Your task to perform on an android device: Go to location settings Image 0: 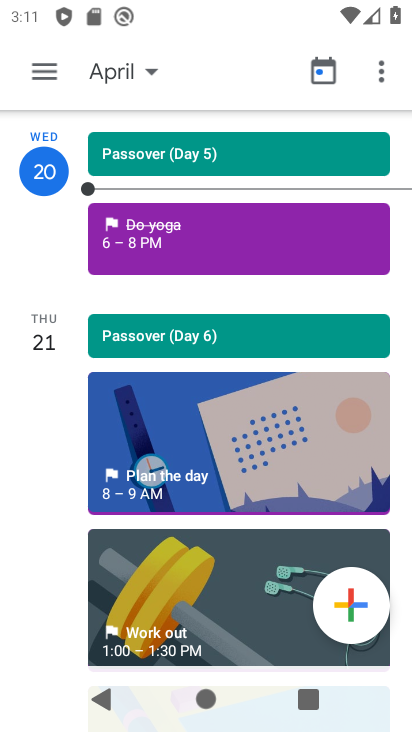
Step 0: press home button
Your task to perform on an android device: Go to location settings Image 1: 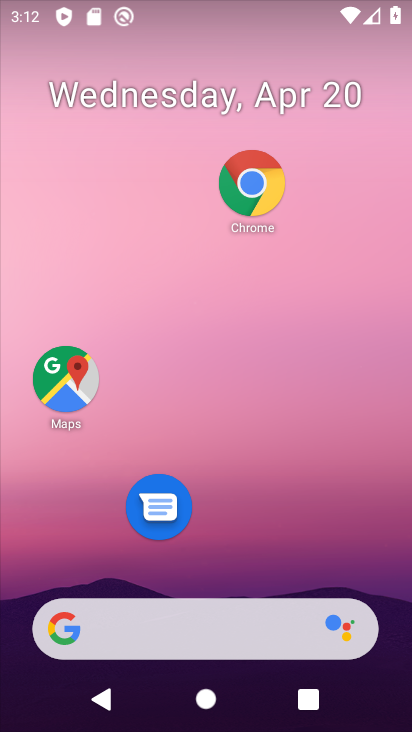
Step 1: drag from (231, 565) to (164, 158)
Your task to perform on an android device: Go to location settings Image 2: 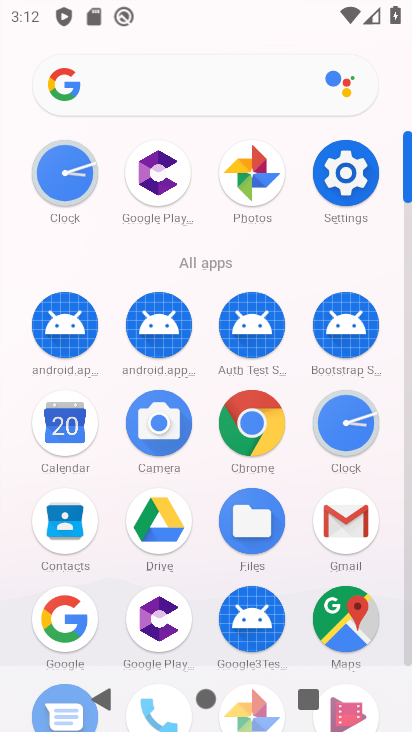
Step 2: click (347, 182)
Your task to perform on an android device: Go to location settings Image 3: 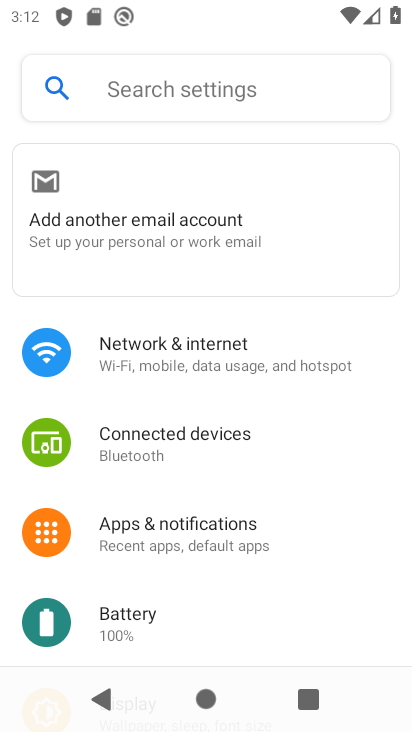
Step 3: drag from (205, 590) to (224, 352)
Your task to perform on an android device: Go to location settings Image 4: 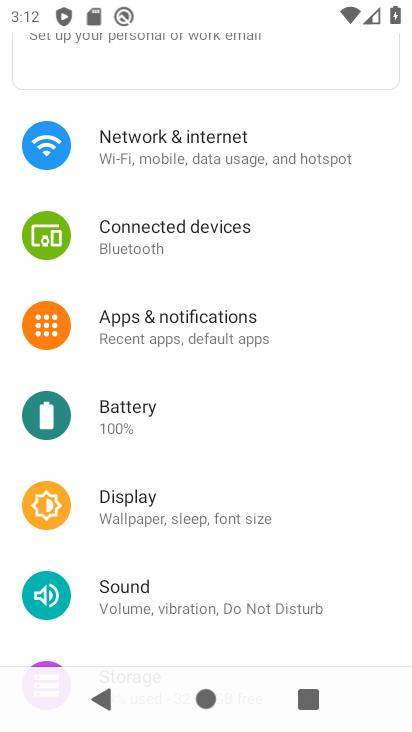
Step 4: drag from (213, 589) to (247, 264)
Your task to perform on an android device: Go to location settings Image 5: 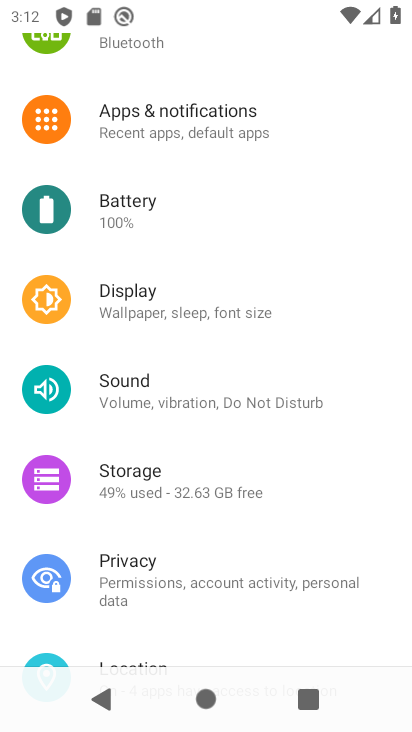
Step 5: drag from (199, 527) to (240, 270)
Your task to perform on an android device: Go to location settings Image 6: 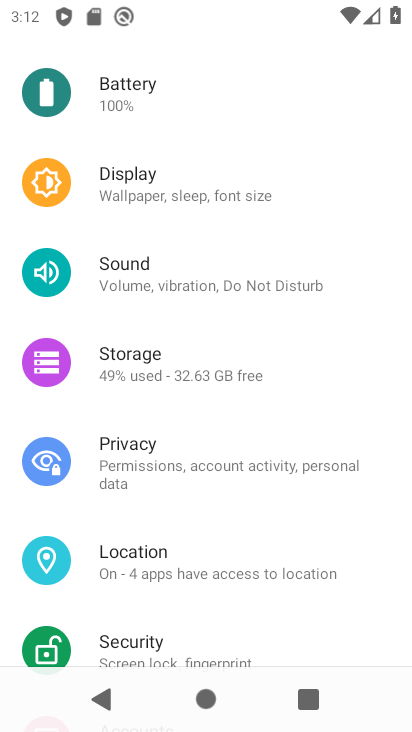
Step 6: click (180, 560)
Your task to perform on an android device: Go to location settings Image 7: 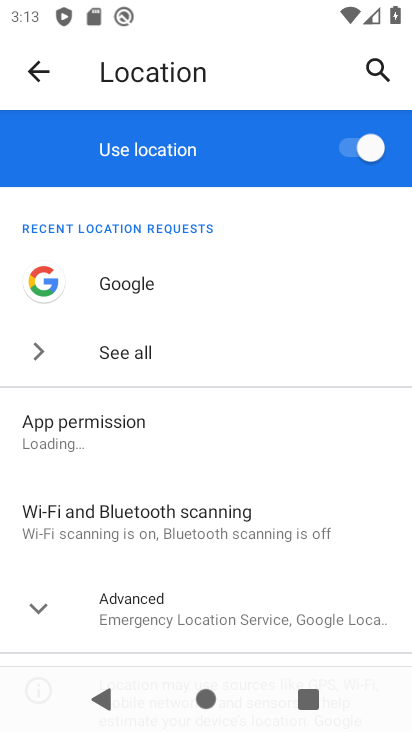
Step 7: click (350, 148)
Your task to perform on an android device: Go to location settings Image 8: 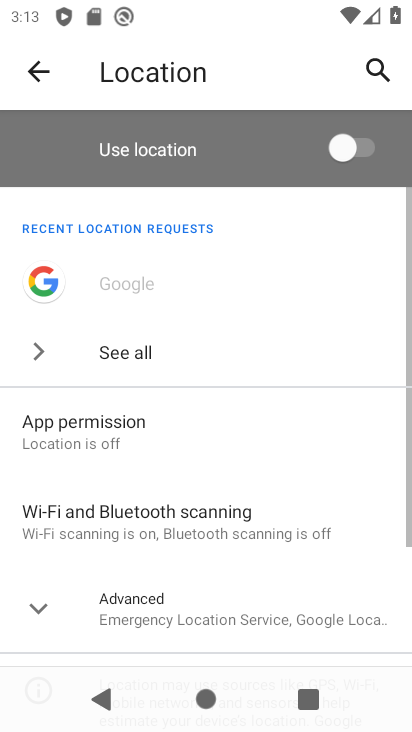
Step 8: click (363, 143)
Your task to perform on an android device: Go to location settings Image 9: 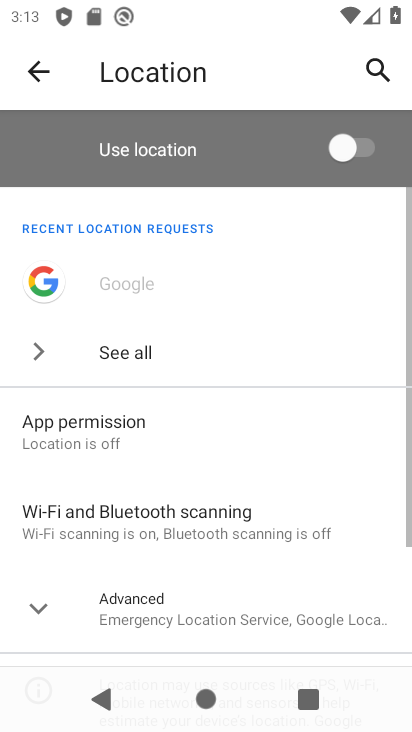
Step 9: task complete